Your task to perform on an android device: turn off data saver in the chrome app Image 0: 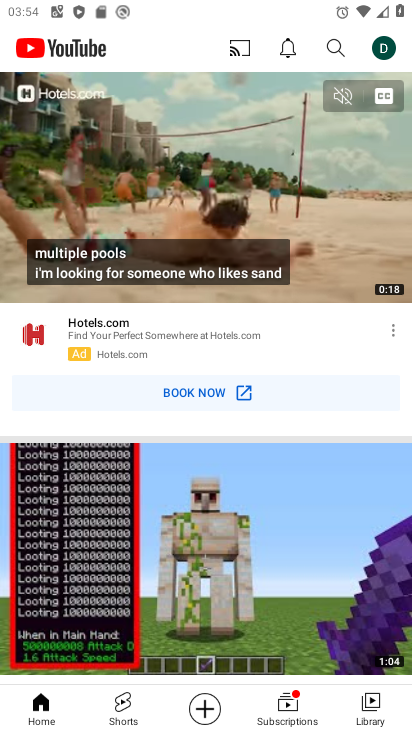
Step 0: press home button
Your task to perform on an android device: turn off data saver in the chrome app Image 1: 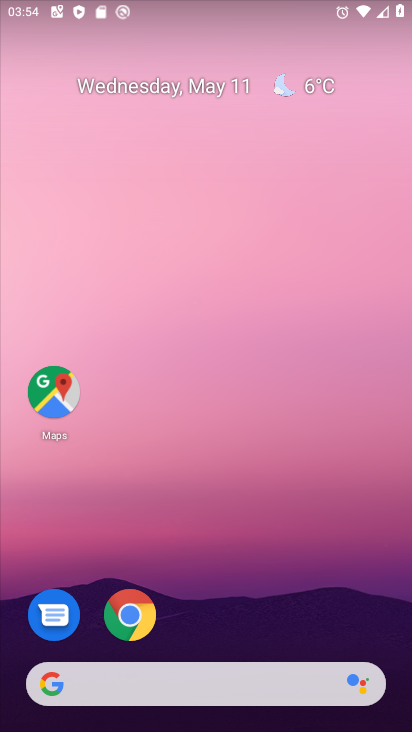
Step 1: click (118, 626)
Your task to perform on an android device: turn off data saver in the chrome app Image 2: 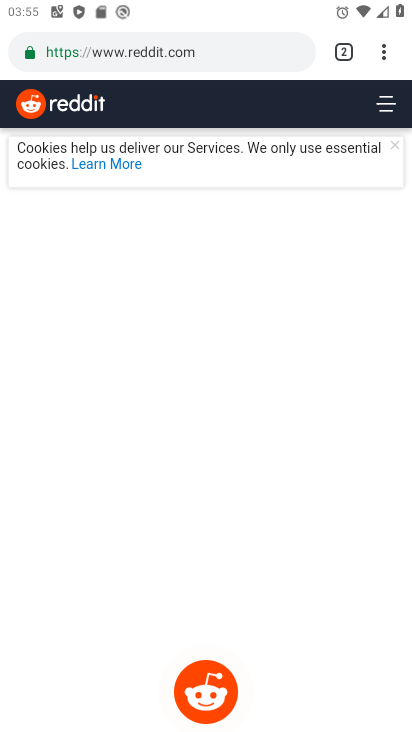
Step 2: drag from (383, 51) to (212, 630)
Your task to perform on an android device: turn off data saver in the chrome app Image 3: 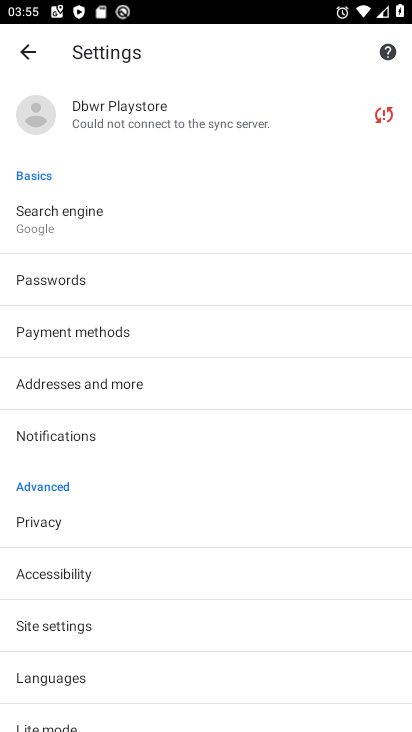
Step 3: drag from (116, 702) to (223, 236)
Your task to perform on an android device: turn off data saver in the chrome app Image 4: 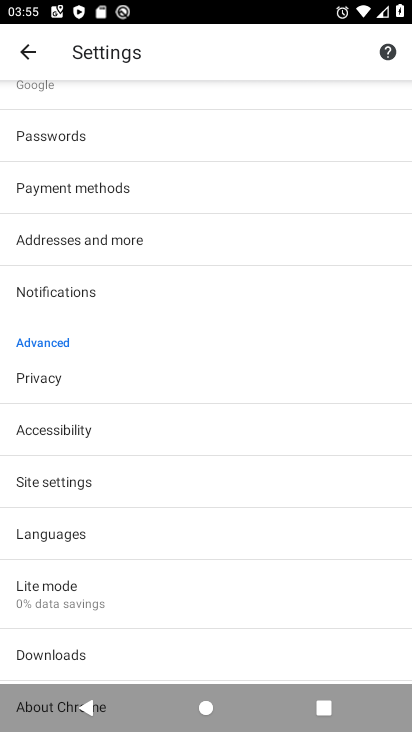
Step 4: click (81, 590)
Your task to perform on an android device: turn off data saver in the chrome app Image 5: 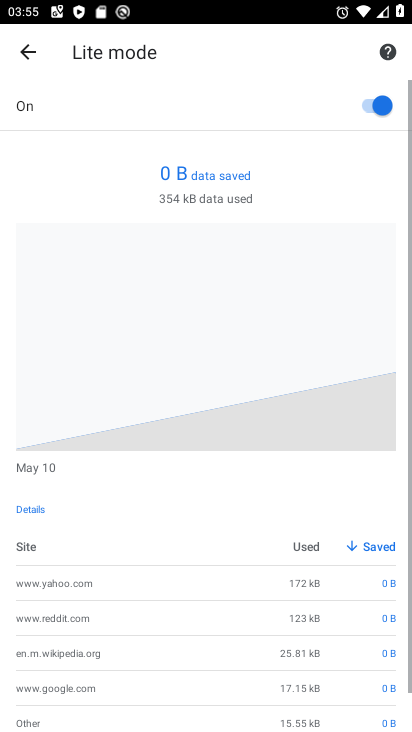
Step 5: click (373, 111)
Your task to perform on an android device: turn off data saver in the chrome app Image 6: 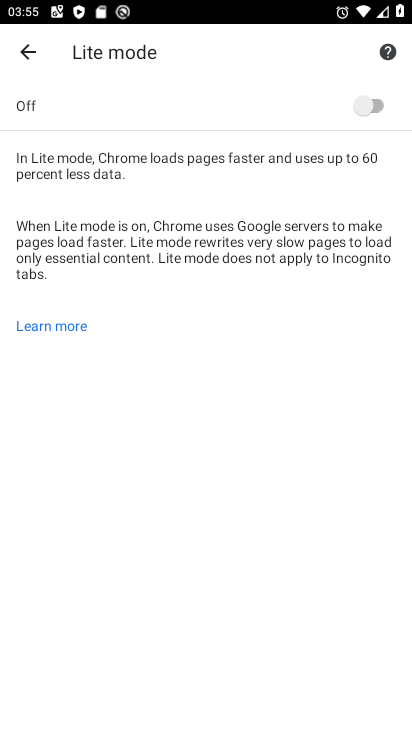
Step 6: task complete